Your task to perform on an android device: turn pop-ups off in chrome Image 0: 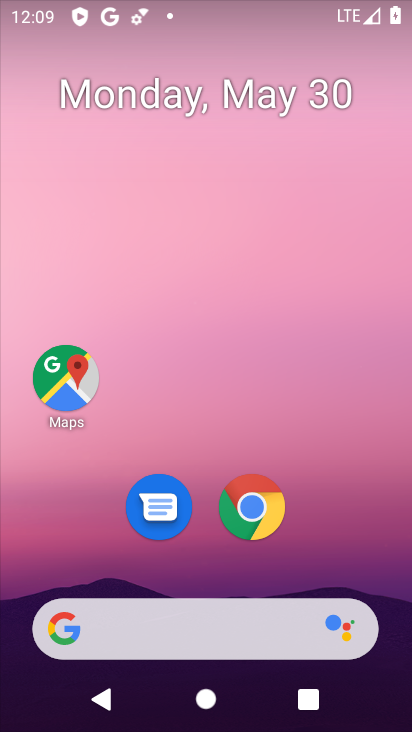
Step 0: drag from (293, 556) to (269, 68)
Your task to perform on an android device: turn pop-ups off in chrome Image 1: 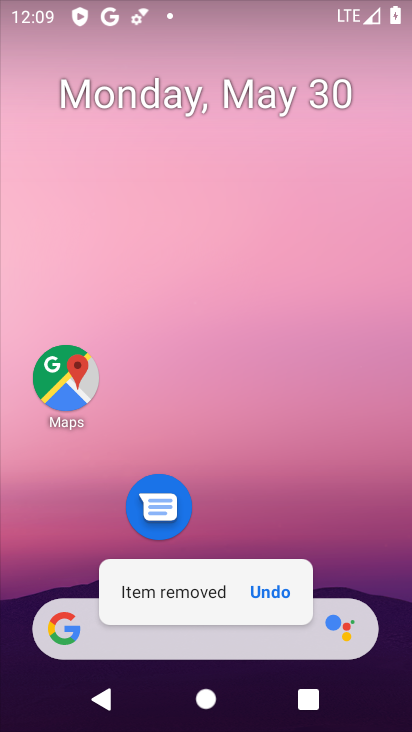
Step 1: click (362, 514)
Your task to perform on an android device: turn pop-ups off in chrome Image 2: 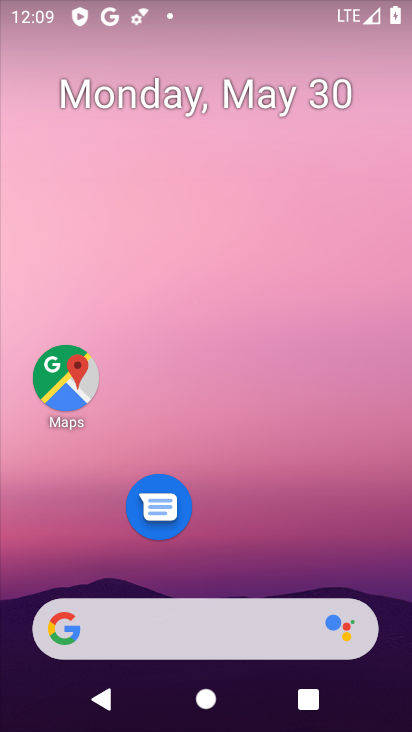
Step 2: drag from (332, 532) to (238, 116)
Your task to perform on an android device: turn pop-ups off in chrome Image 3: 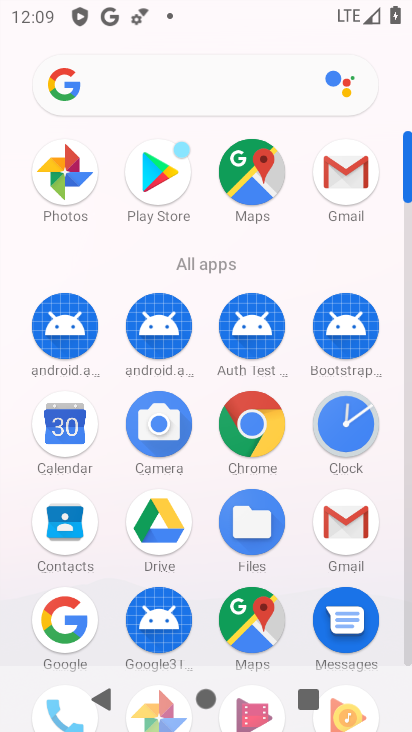
Step 3: click (261, 423)
Your task to perform on an android device: turn pop-ups off in chrome Image 4: 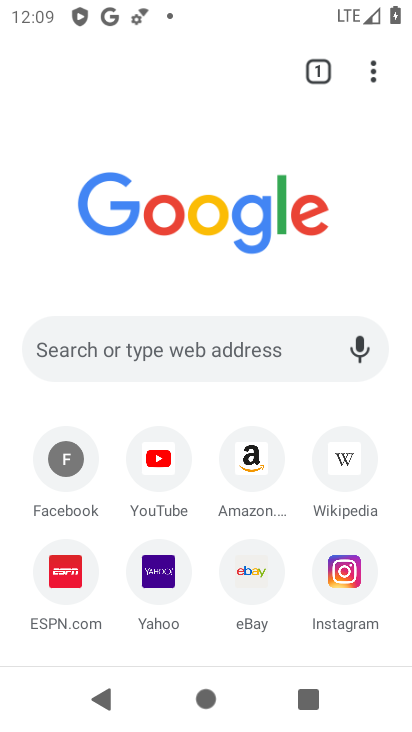
Step 4: click (374, 74)
Your task to perform on an android device: turn pop-ups off in chrome Image 5: 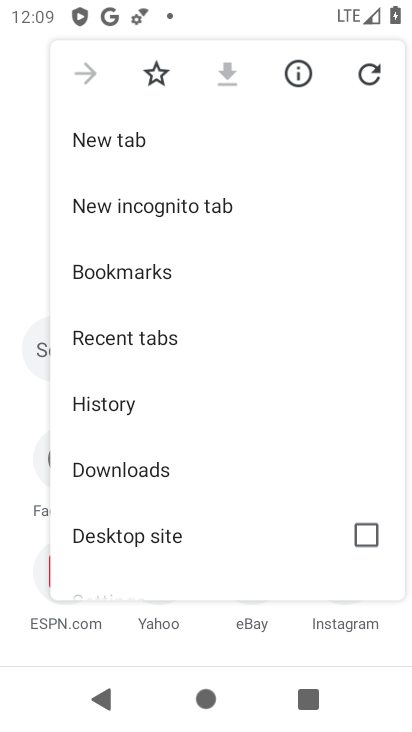
Step 5: drag from (252, 501) to (220, 147)
Your task to perform on an android device: turn pop-ups off in chrome Image 6: 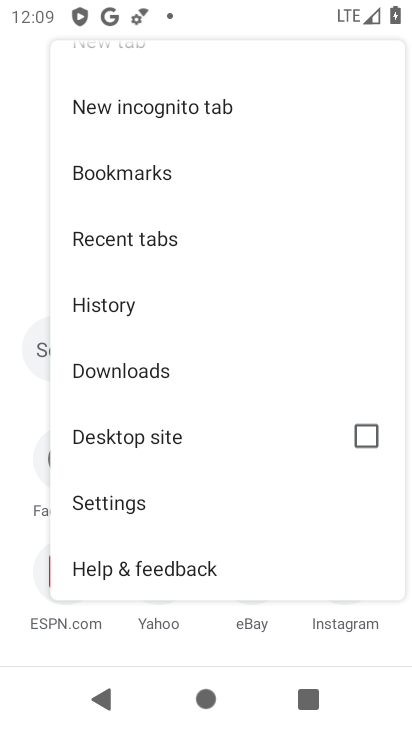
Step 6: click (129, 503)
Your task to perform on an android device: turn pop-ups off in chrome Image 7: 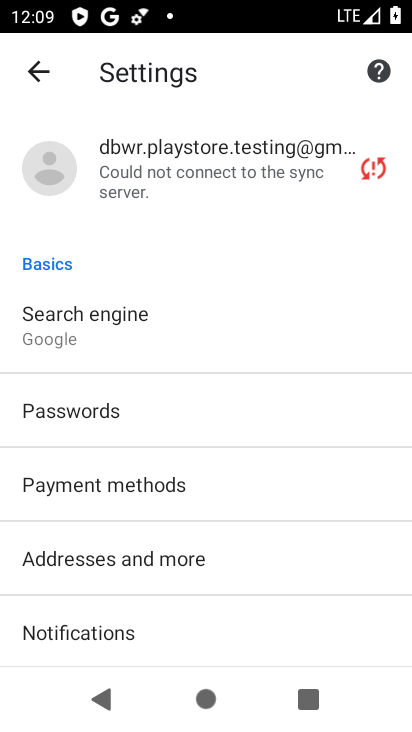
Step 7: drag from (266, 591) to (259, 293)
Your task to perform on an android device: turn pop-ups off in chrome Image 8: 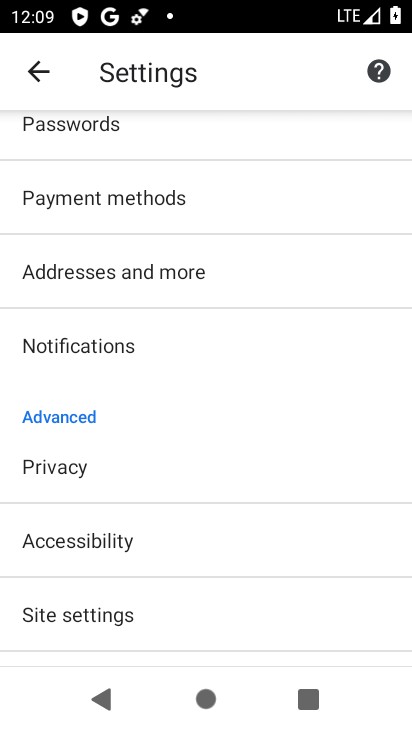
Step 8: click (97, 617)
Your task to perform on an android device: turn pop-ups off in chrome Image 9: 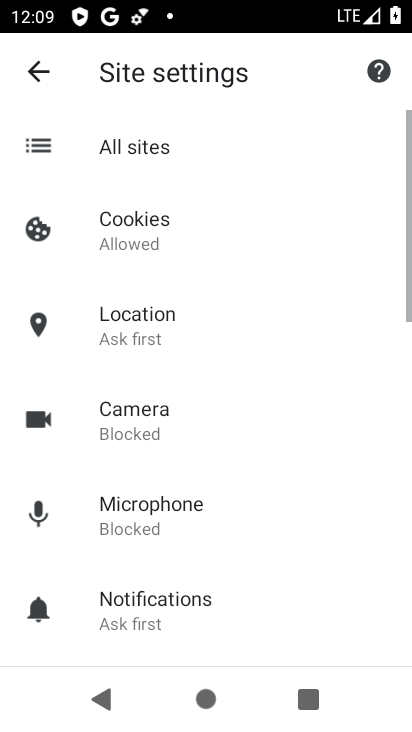
Step 9: drag from (289, 579) to (291, 255)
Your task to perform on an android device: turn pop-ups off in chrome Image 10: 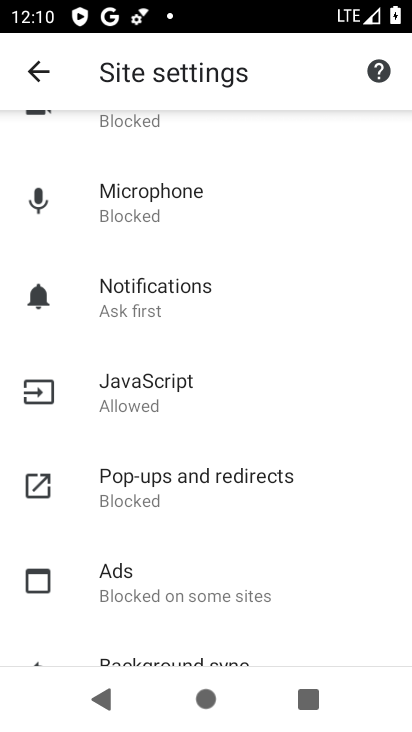
Step 10: click (104, 487)
Your task to perform on an android device: turn pop-ups off in chrome Image 11: 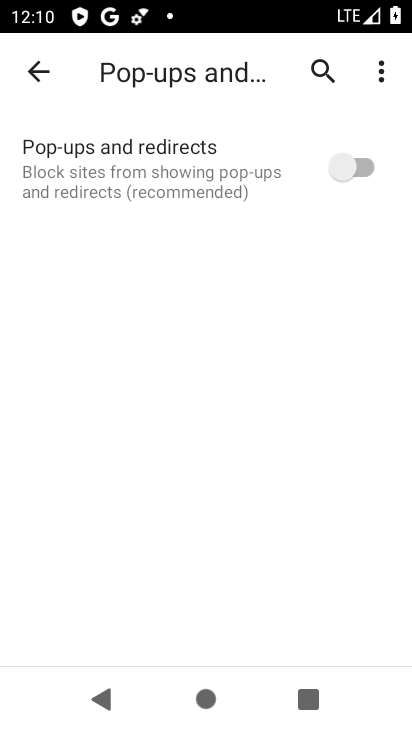
Step 11: task complete